Your task to perform on an android device: Open Google Chrome Image 0: 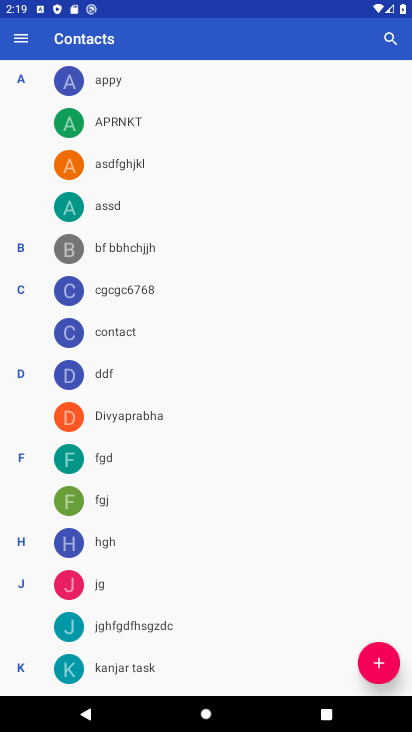
Step 0: press home button
Your task to perform on an android device: Open Google Chrome Image 1: 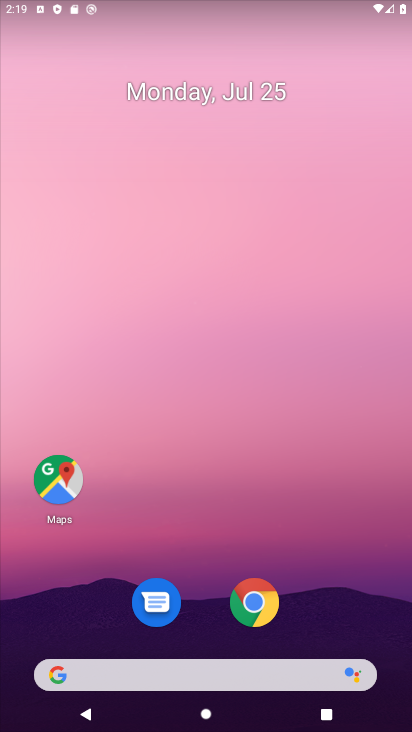
Step 1: click (182, 427)
Your task to perform on an android device: Open Google Chrome Image 2: 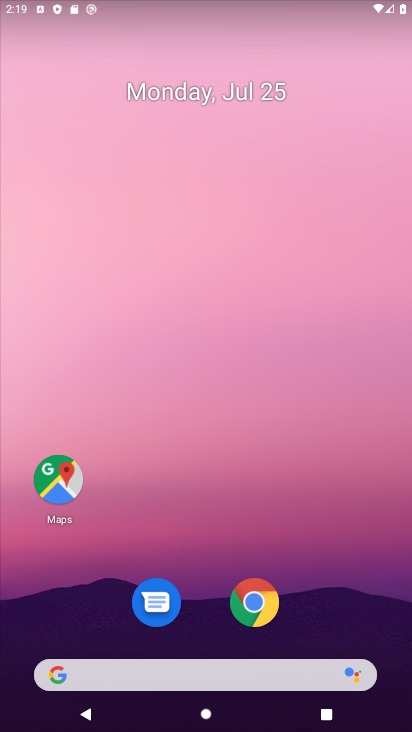
Step 2: click (257, 602)
Your task to perform on an android device: Open Google Chrome Image 3: 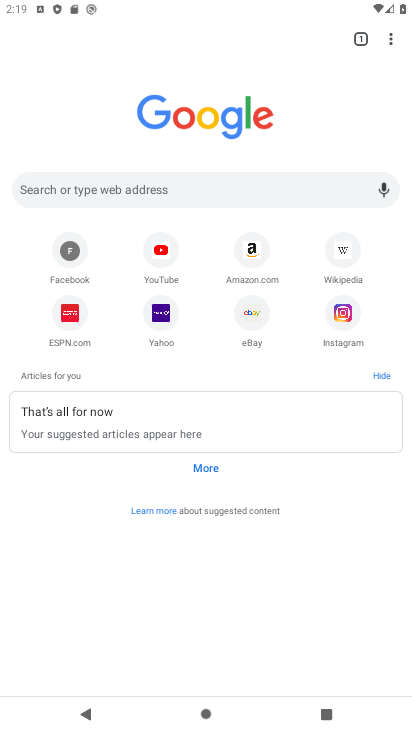
Step 3: task complete